Your task to perform on an android device: turn off location Image 0: 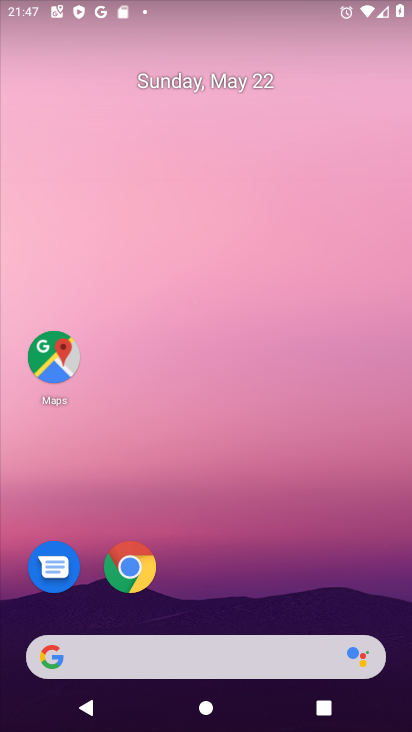
Step 0: drag from (205, 601) to (264, 2)
Your task to perform on an android device: turn off location Image 1: 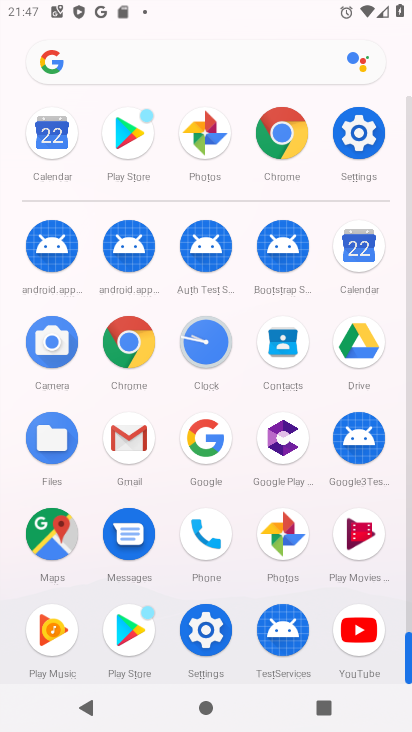
Step 1: click (355, 145)
Your task to perform on an android device: turn off location Image 2: 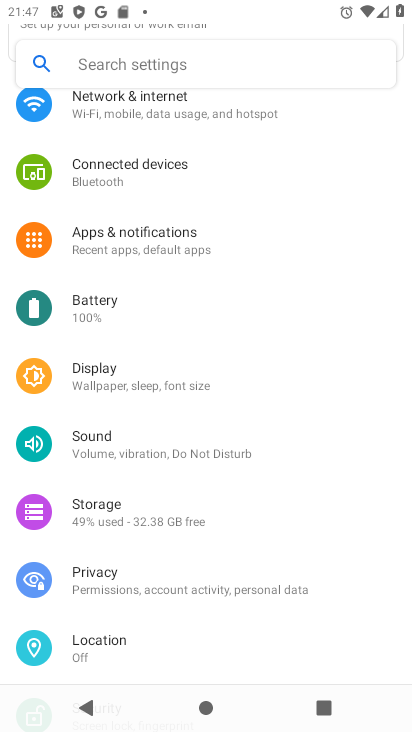
Step 2: click (114, 639)
Your task to perform on an android device: turn off location Image 3: 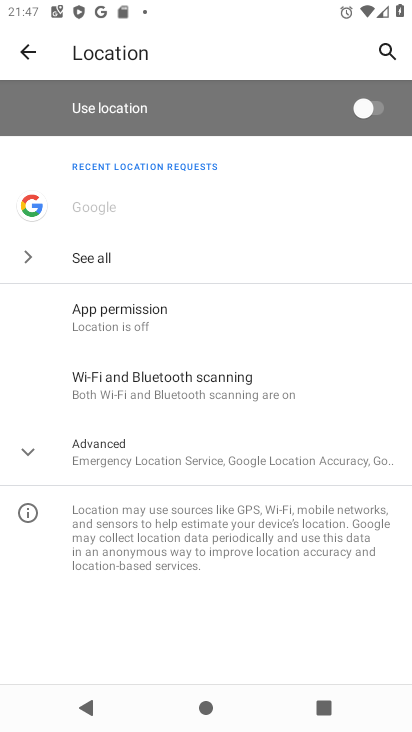
Step 3: task complete